Your task to perform on an android device: set the stopwatch Image 0: 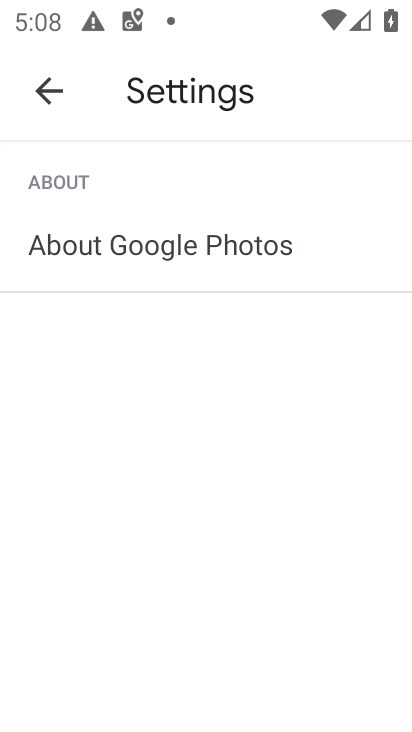
Step 0: press home button
Your task to perform on an android device: set the stopwatch Image 1: 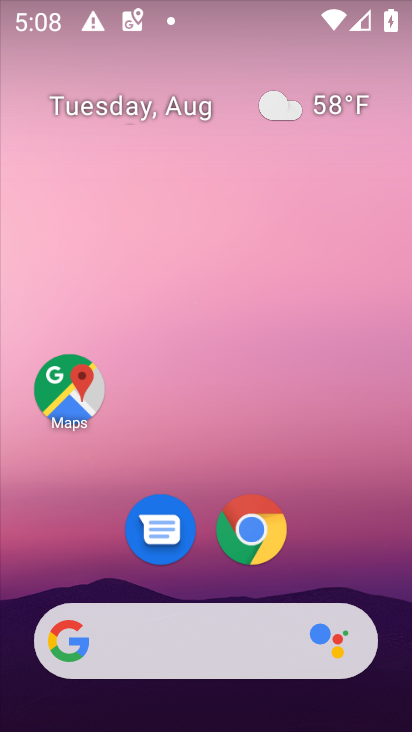
Step 1: drag from (215, 466) to (218, 156)
Your task to perform on an android device: set the stopwatch Image 2: 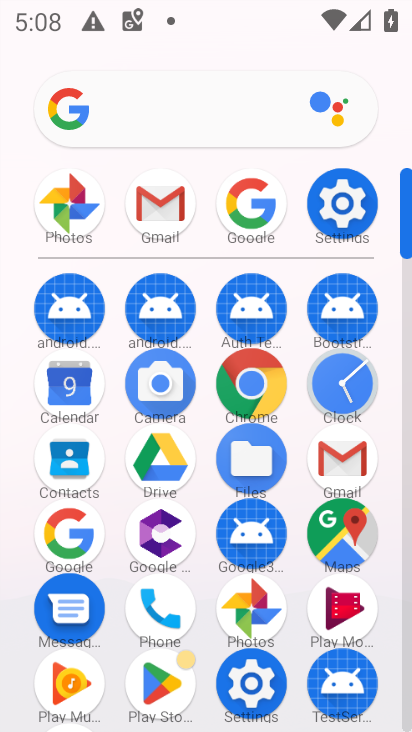
Step 2: drag from (206, 495) to (202, 171)
Your task to perform on an android device: set the stopwatch Image 3: 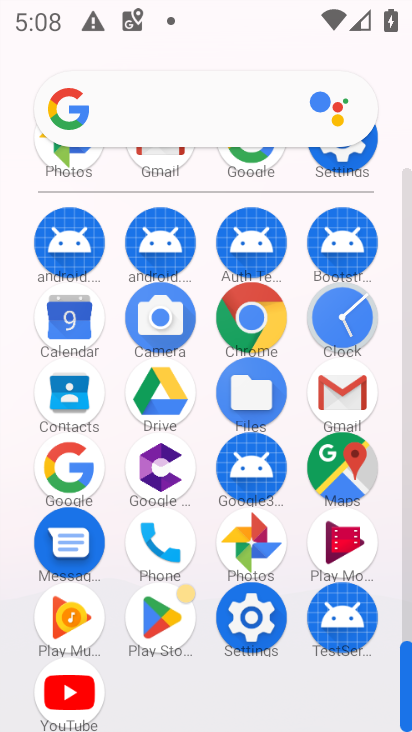
Step 3: click (331, 304)
Your task to perform on an android device: set the stopwatch Image 4: 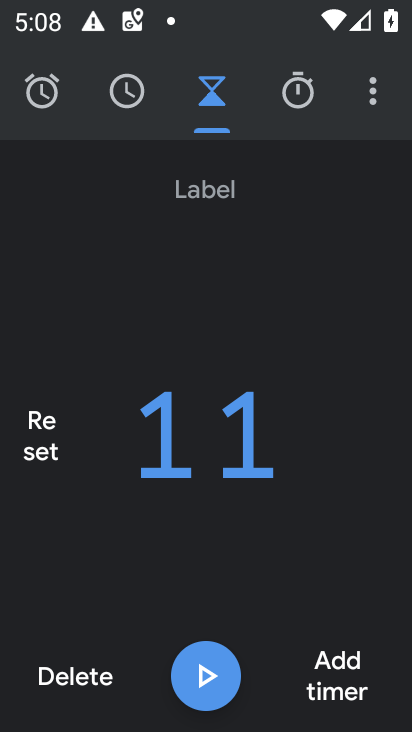
Step 4: click (368, 96)
Your task to perform on an android device: set the stopwatch Image 5: 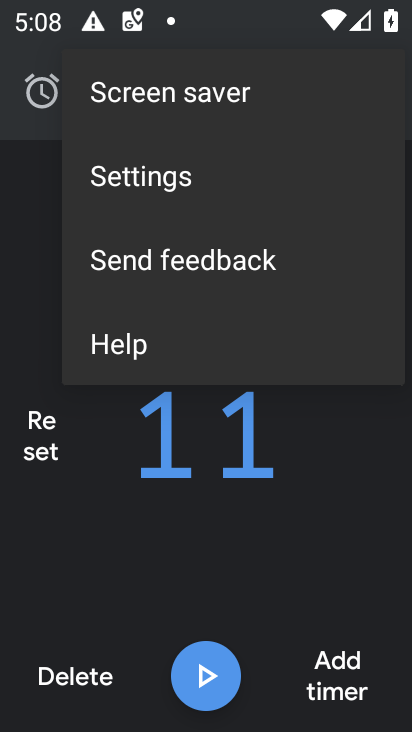
Step 5: click (338, 423)
Your task to perform on an android device: set the stopwatch Image 6: 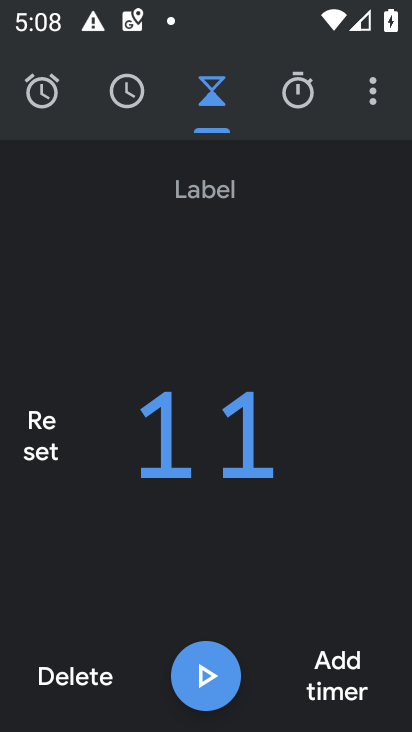
Step 6: click (312, 99)
Your task to perform on an android device: set the stopwatch Image 7: 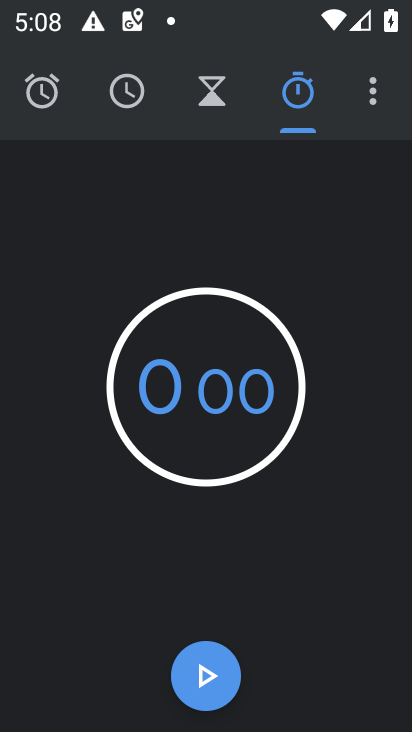
Step 7: click (187, 666)
Your task to perform on an android device: set the stopwatch Image 8: 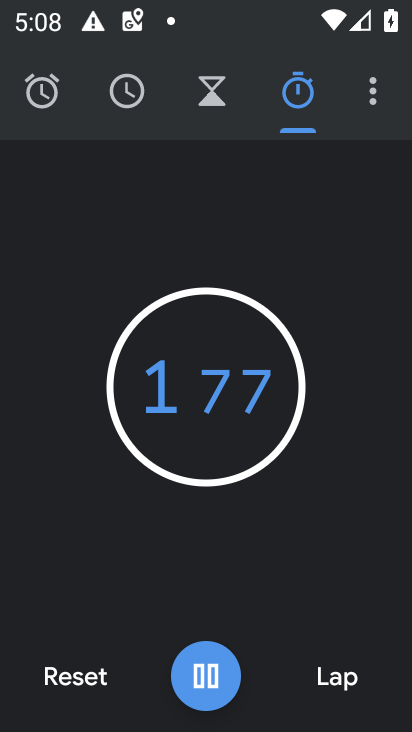
Step 8: task complete